Your task to perform on an android device: open app "Adobe Express: Graphic Design" Image 0: 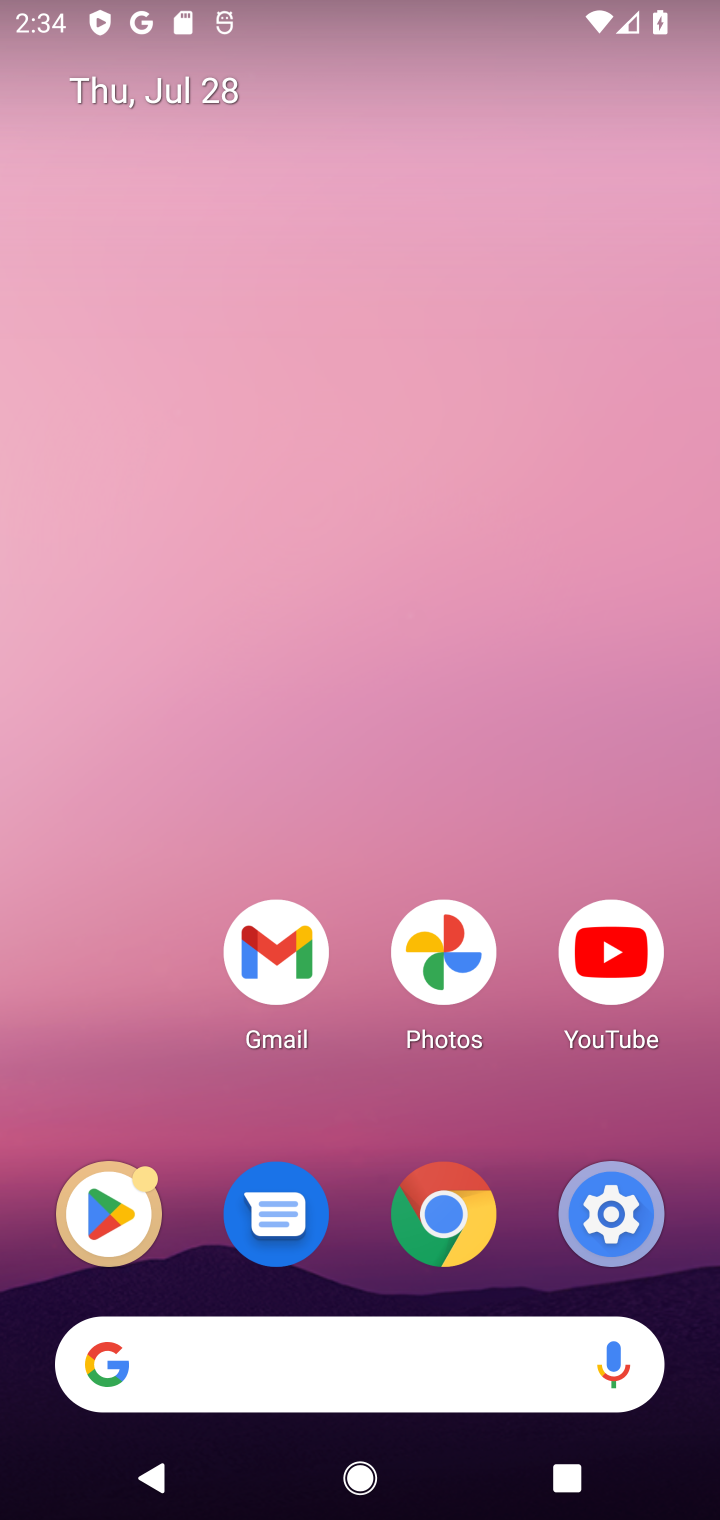
Step 0: drag from (524, 1106) to (477, 293)
Your task to perform on an android device: open app "Adobe Express: Graphic Design" Image 1: 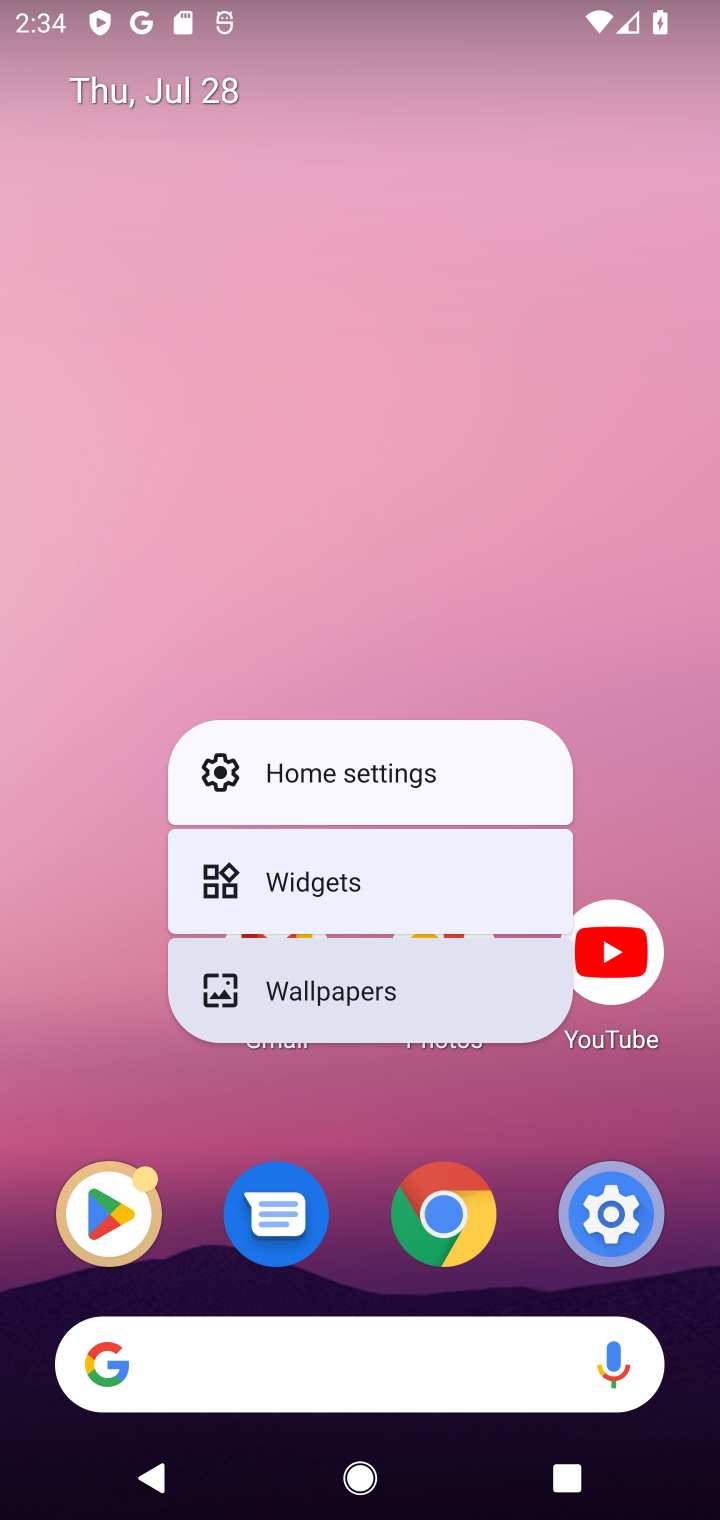
Step 1: click (608, 420)
Your task to perform on an android device: open app "Adobe Express: Graphic Design" Image 2: 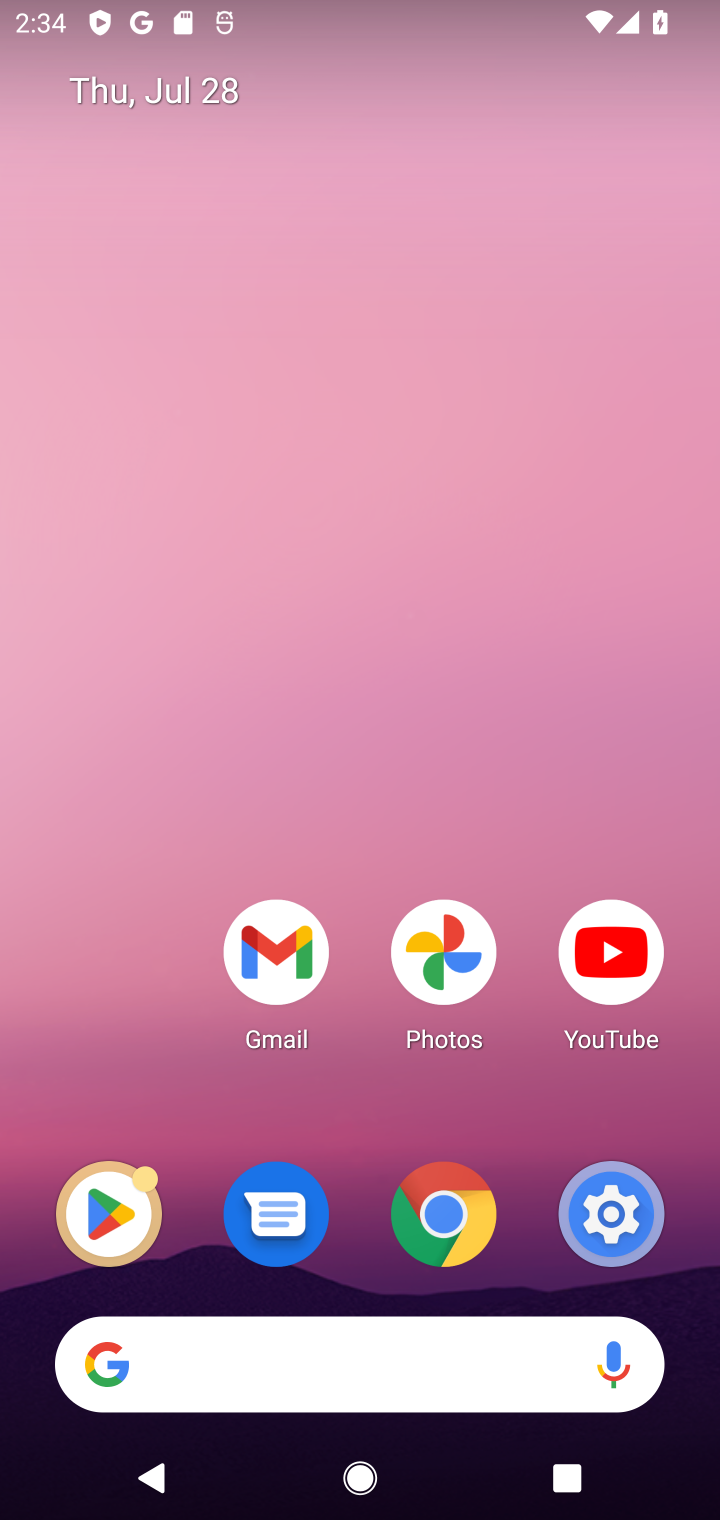
Step 2: task complete